Your task to perform on an android device: View the shopping cart on newegg.com. Add logitech g502 to the cart on newegg.com Image 0: 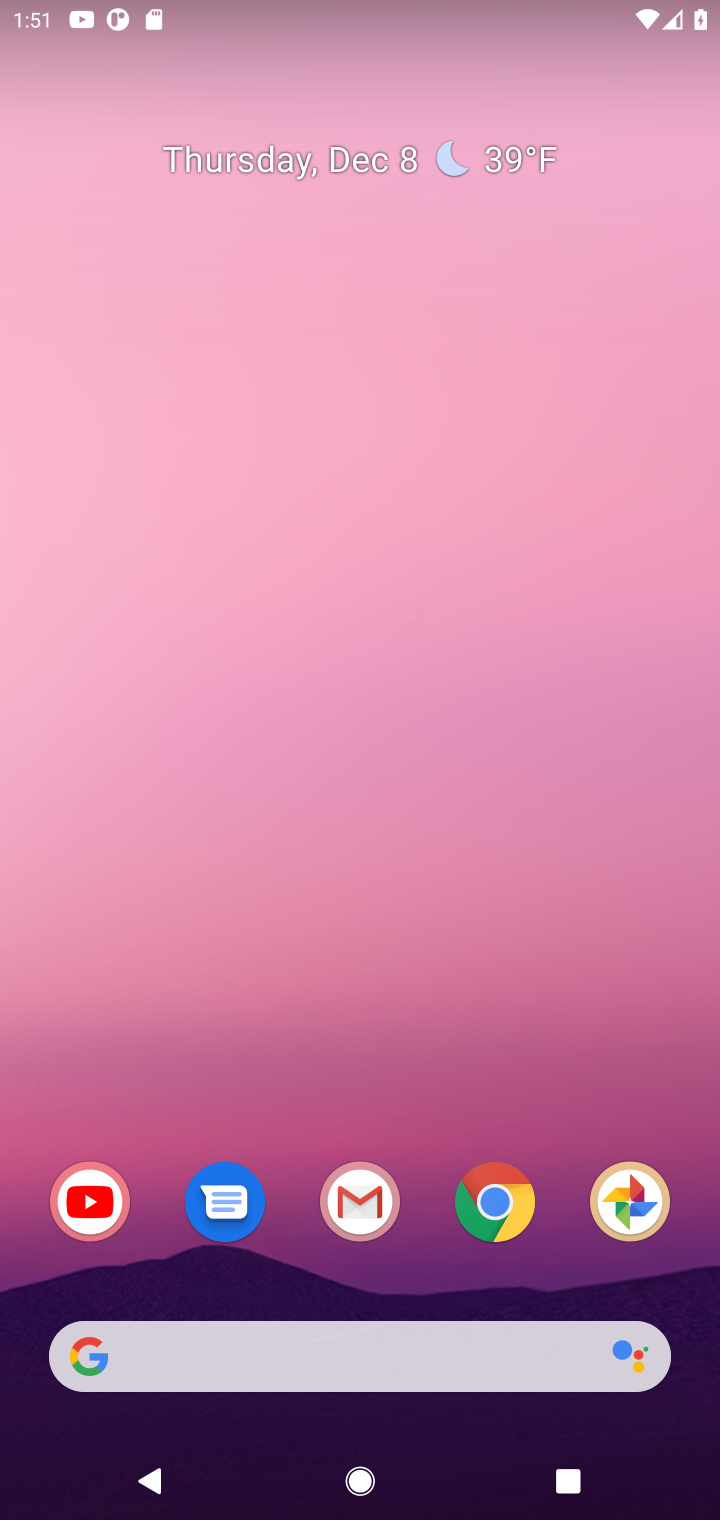
Step 0: click (502, 1199)
Your task to perform on an android device: View the shopping cart on newegg.com. Add logitech g502 to the cart on newegg.com Image 1: 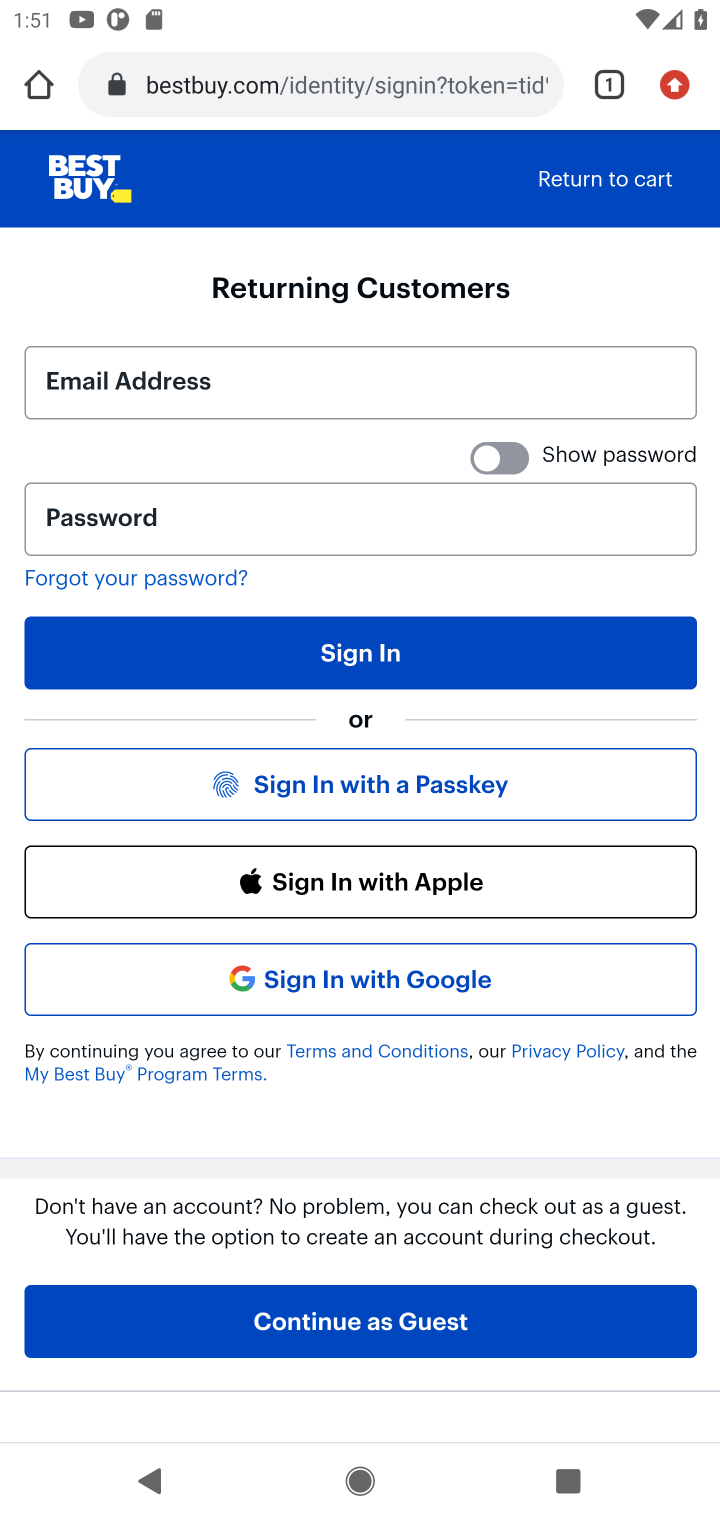
Step 1: click (443, 80)
Your task to perform on an android device: View the shopping cart on newegg.com. Add logitech g502 to the cart on newegg.com Image 2: 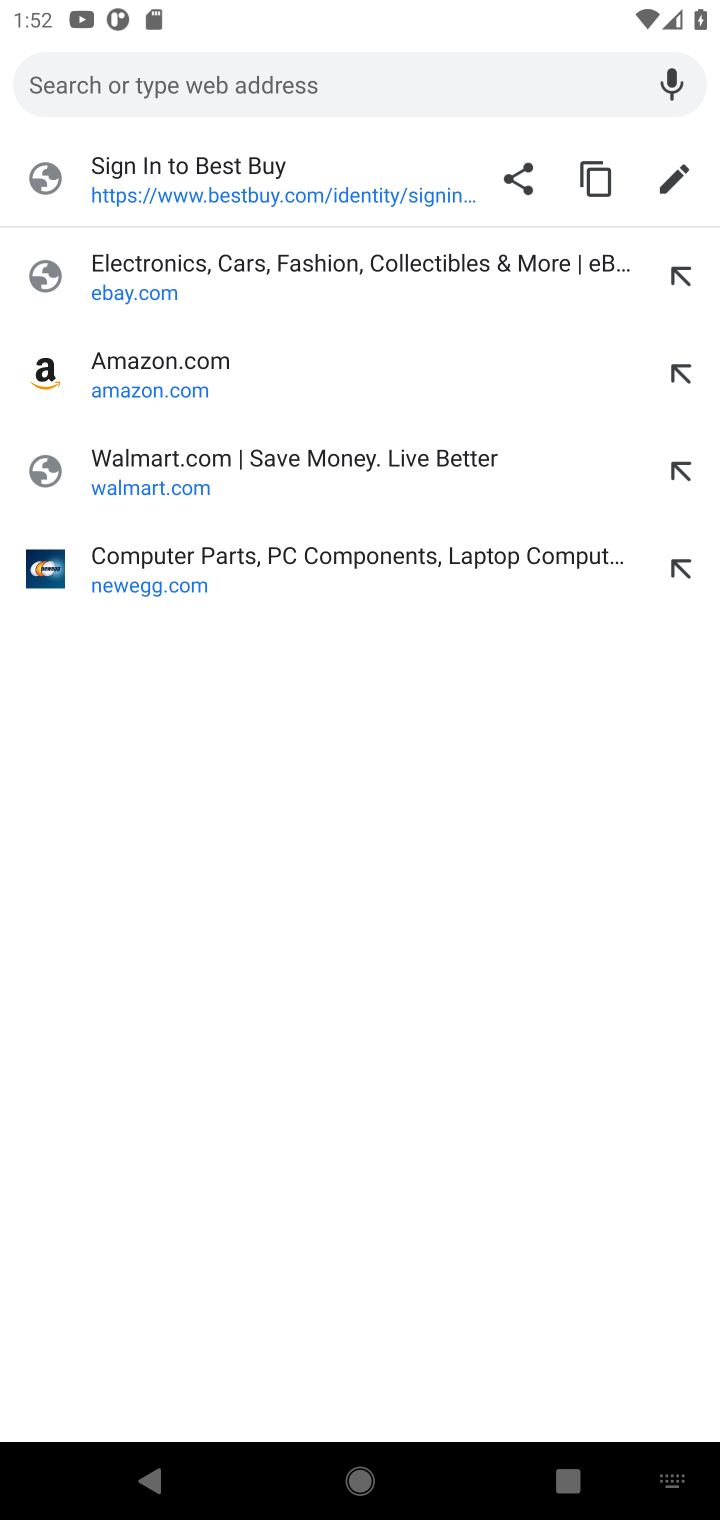
Step 2: click (257, 564)
Your task to perform on an android device: View the shopping cart on newegg.com. Add logitech g502 to the cart on newegg.com Image 3: 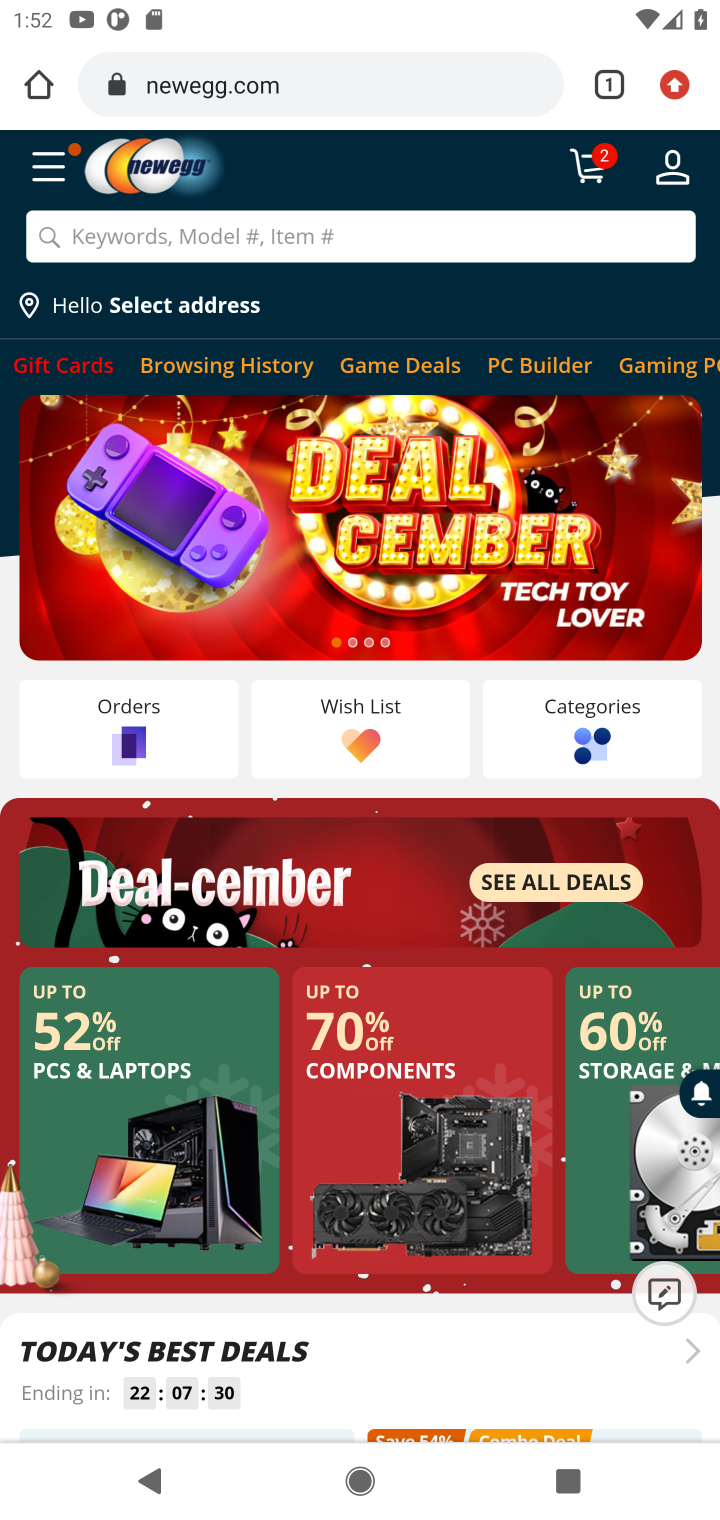
Step 3: click (564, 234)
Your task to perform on an android device: View the shopping cart on newegg.com. Add logitech g502 to the cart on newegg.com Image 4: 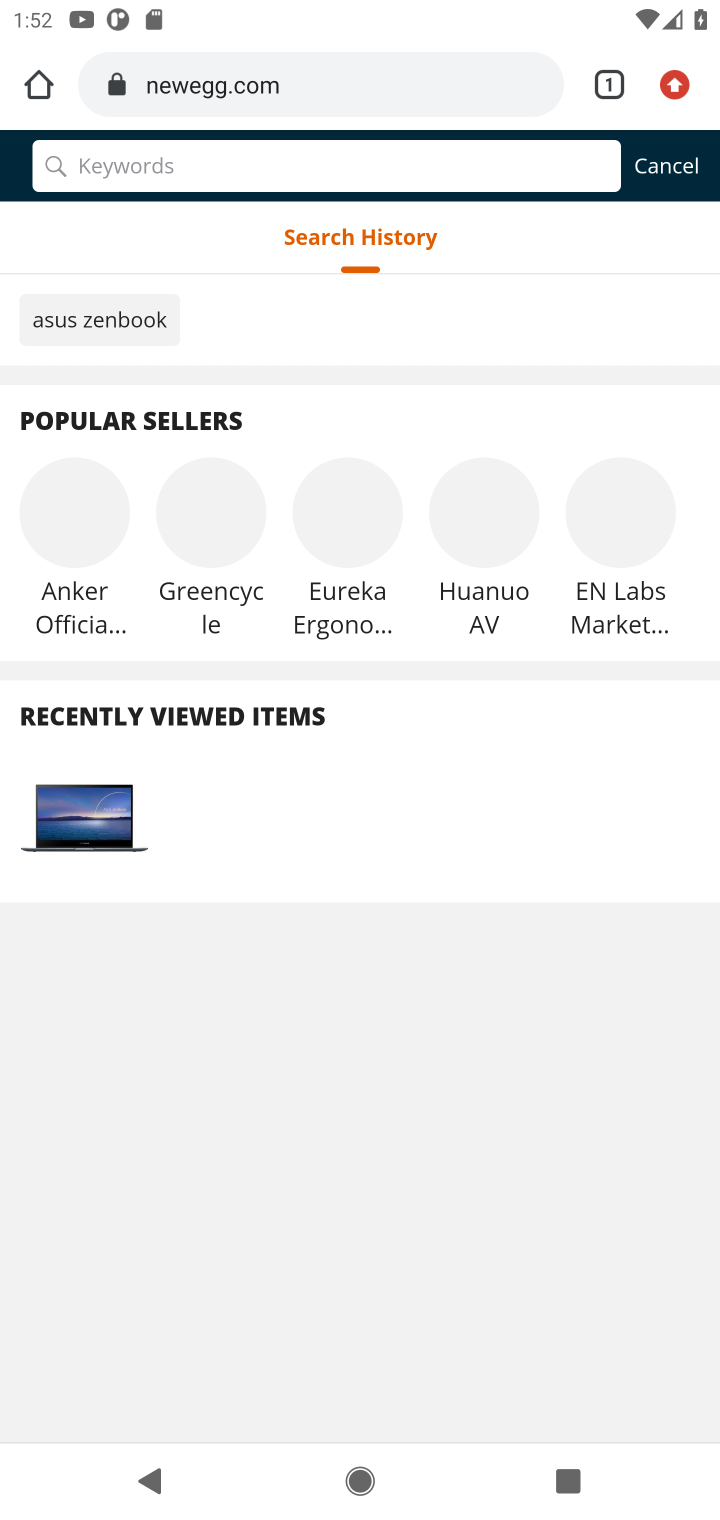
Step 4: click (582, 162)
Your task to perform on an android device: View the shopping cart on newegg.com. Add logitech g502 to the cart on newegg.com Image 5: 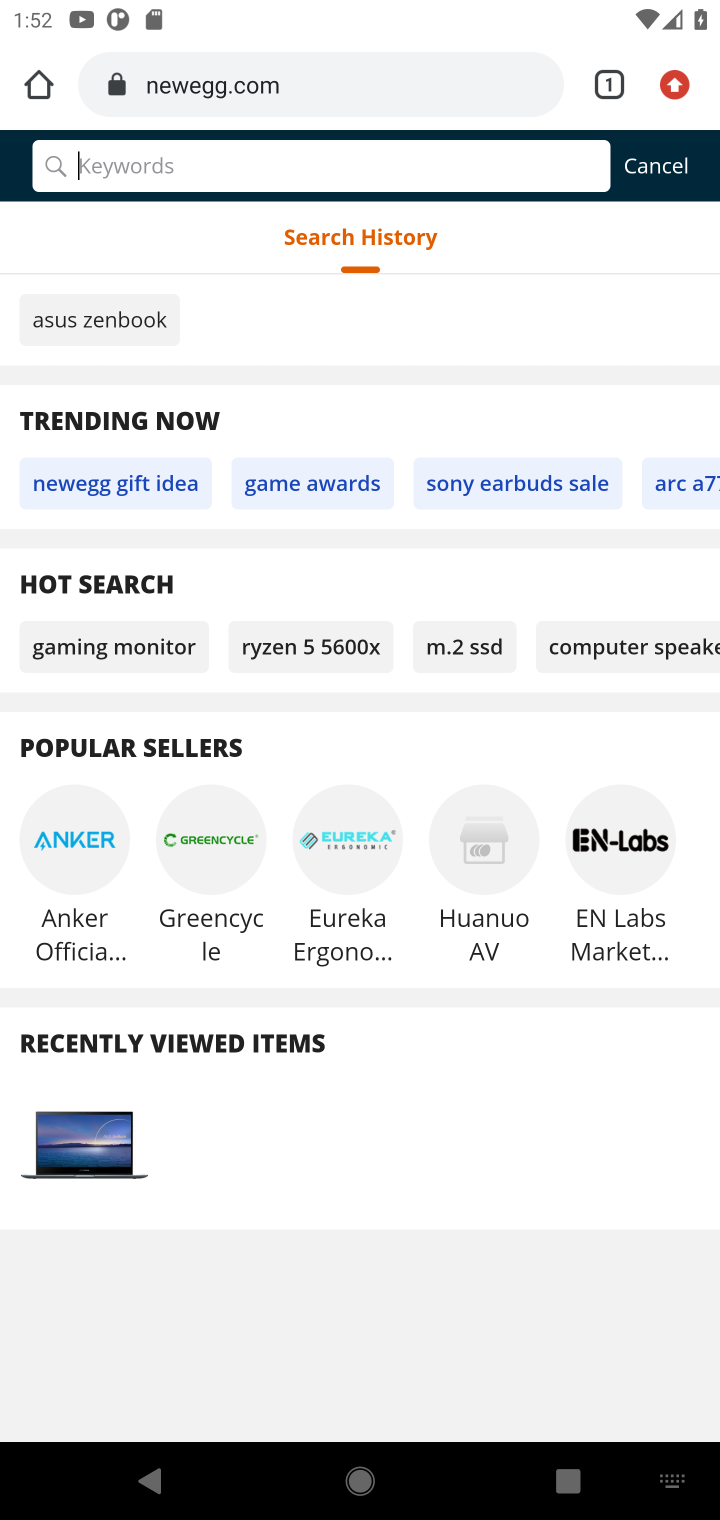
Step 5: click (651, 164)
Your task to perform on an android device: View the shopping cart on newegg.com. Add logitech g502 to the cart on newegg.com Image 6: 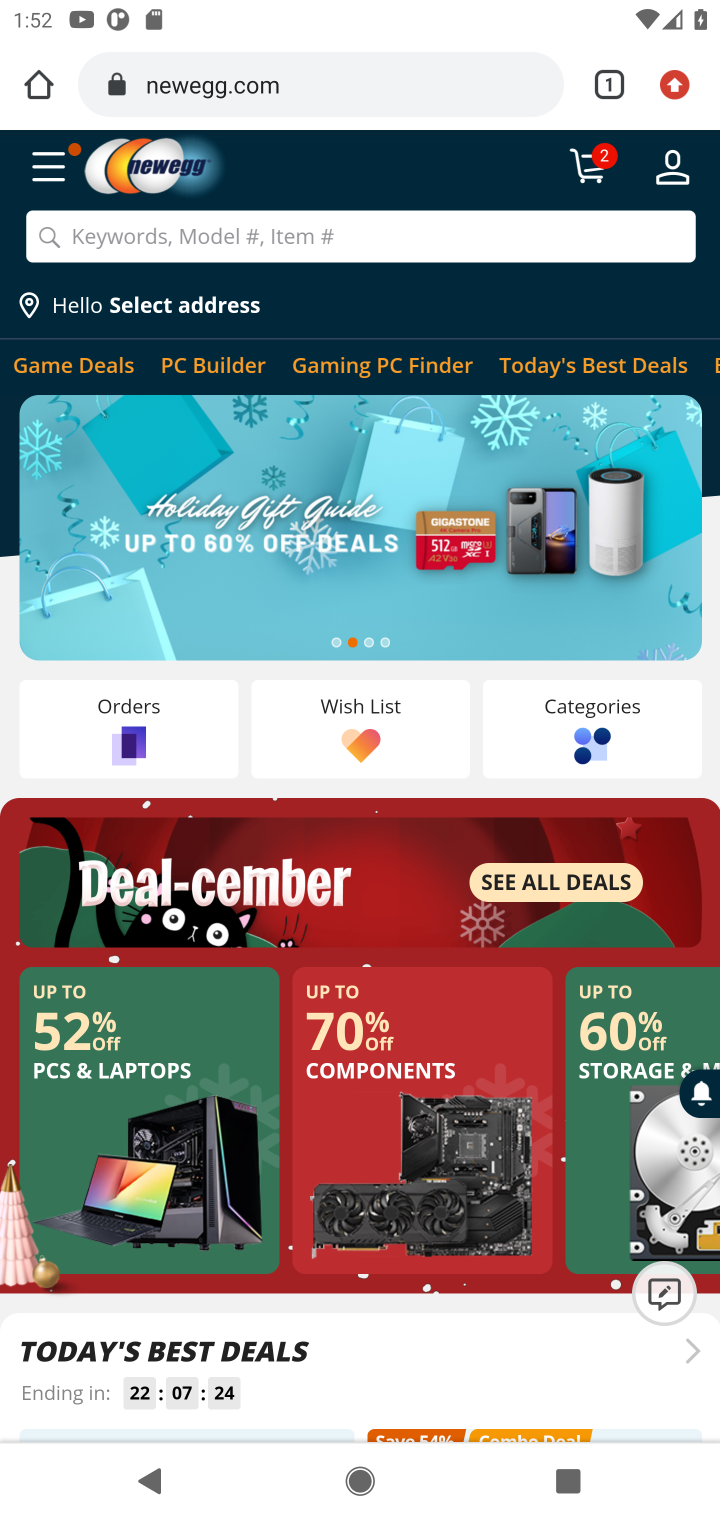
Step 6: click (581, 173)
Your task to perform on an android device: View the shopping cart on newegg.com. Add logitech g502 to the cart on newegg.com Image 7: 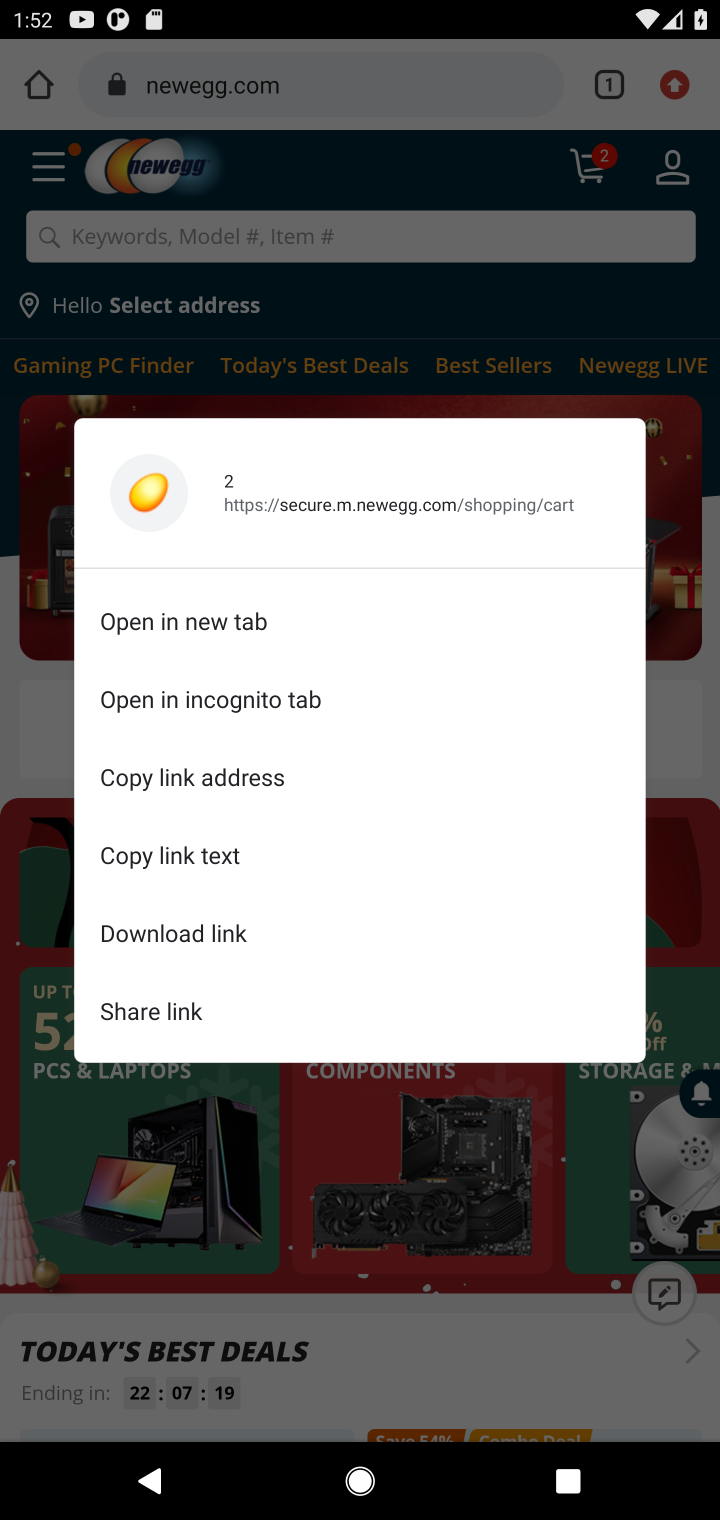
Step 7: click (516, 149)
Your task to perform on an android device: View the shopping cart on newegg.com. Add logitech g502 to the cart on newegg.com Image 8: 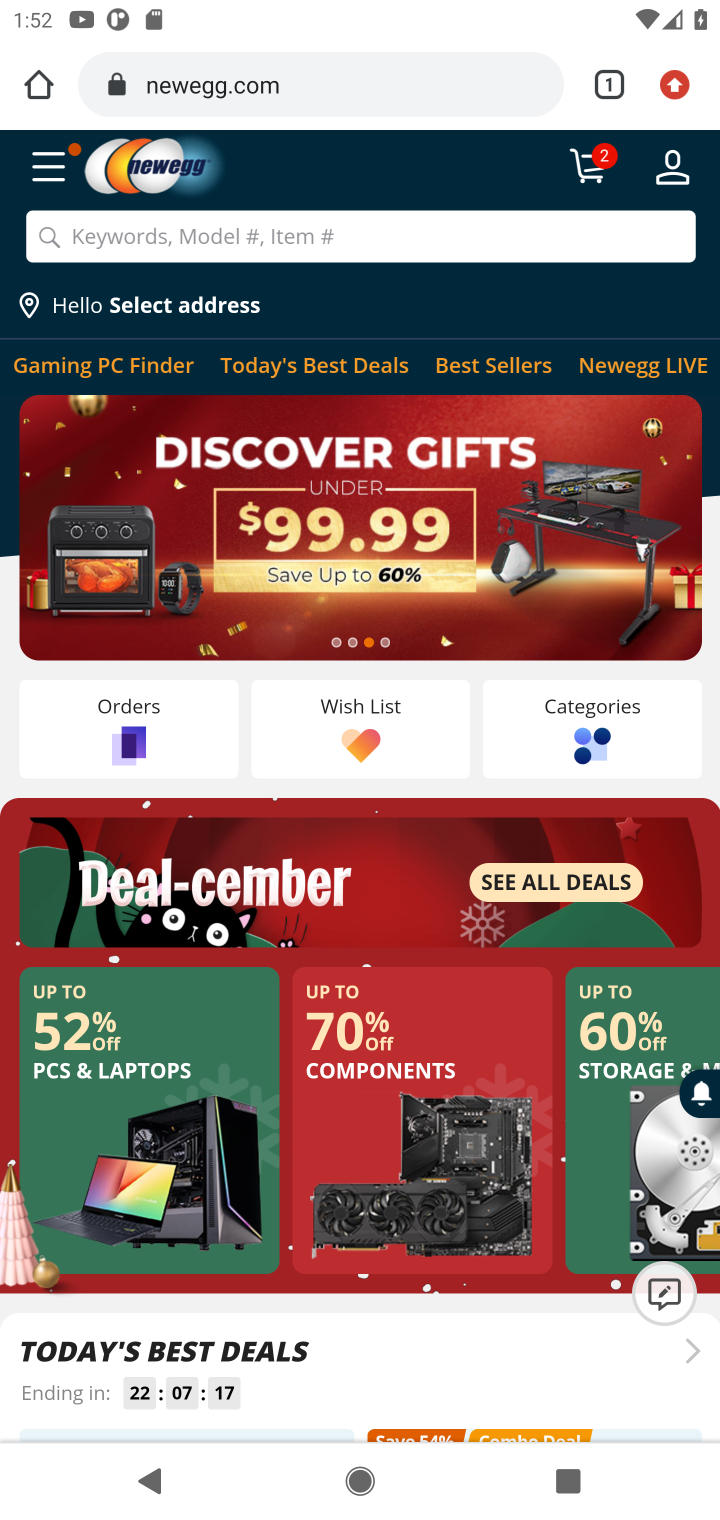
Step 8: click (596, 168)
Your task to perform on an android device: View the shopping cart on newegg.com. Add logitech g502 to the cart on newegg.com Image 9: 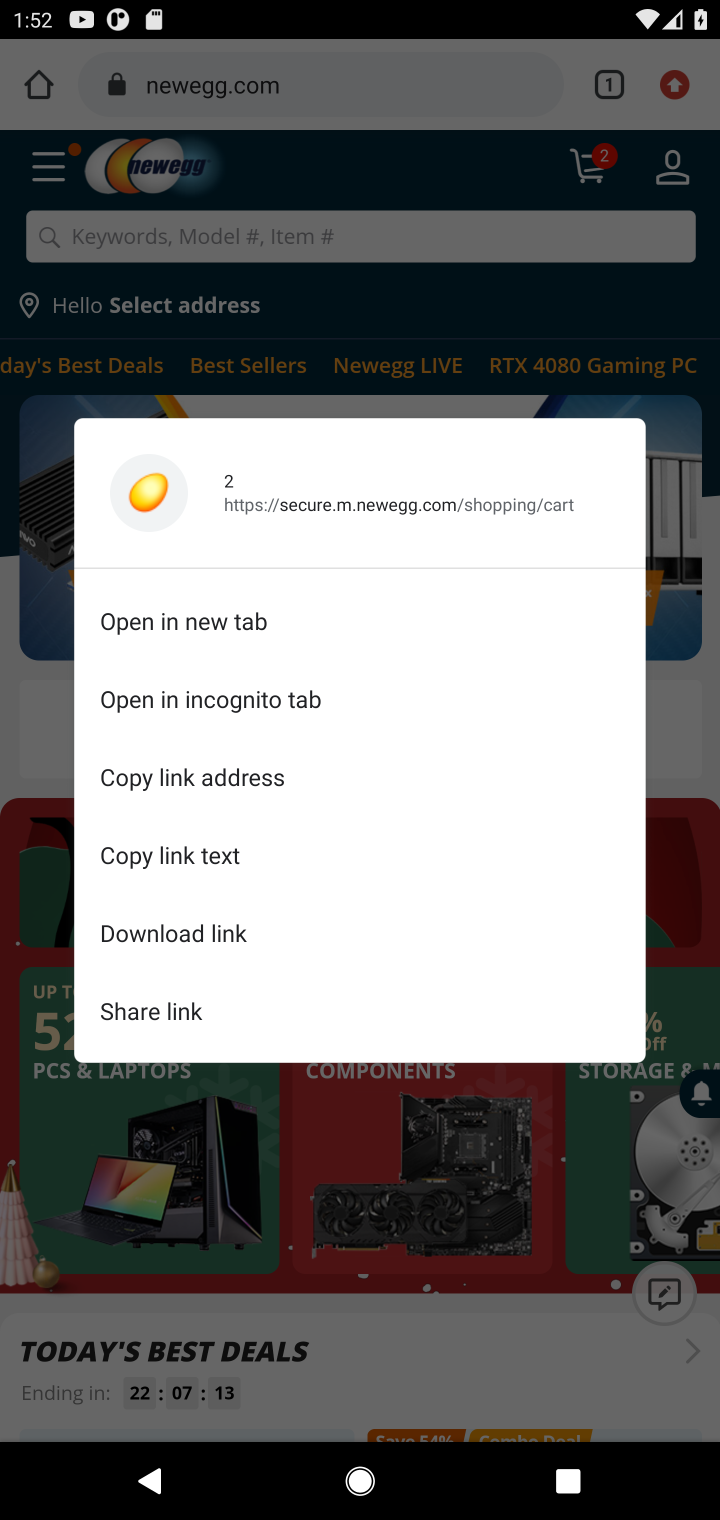
Step 9: click (595, 164)
Your task to perform on an android device: View the shopping cart on newegg.com. Add logitech g502 to the cart on newegg.com Image 10: 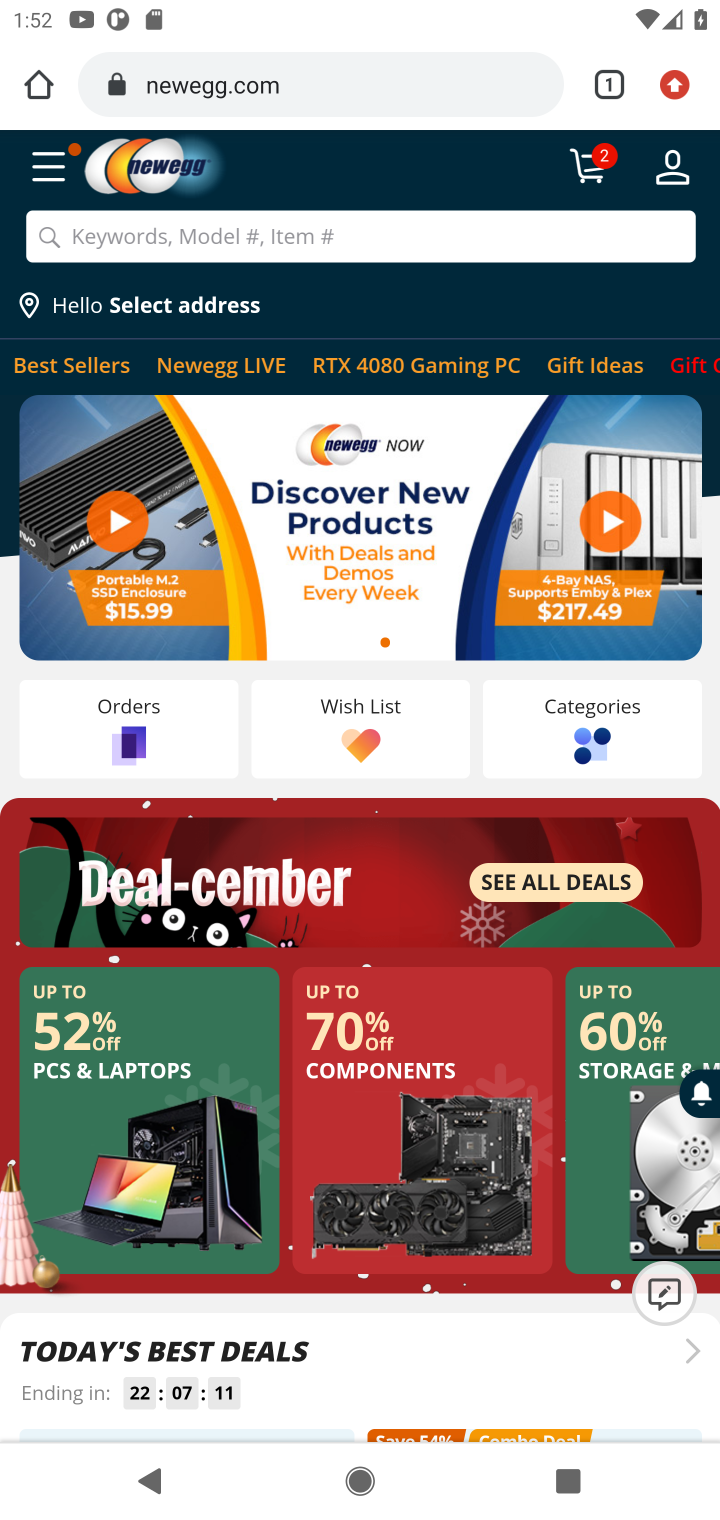
Step 10: click (595, 164)
Your task to perform on an android device: View the shopping cart on newegg.com. Add logitech g502 to the cart on newegg.com Image 11: 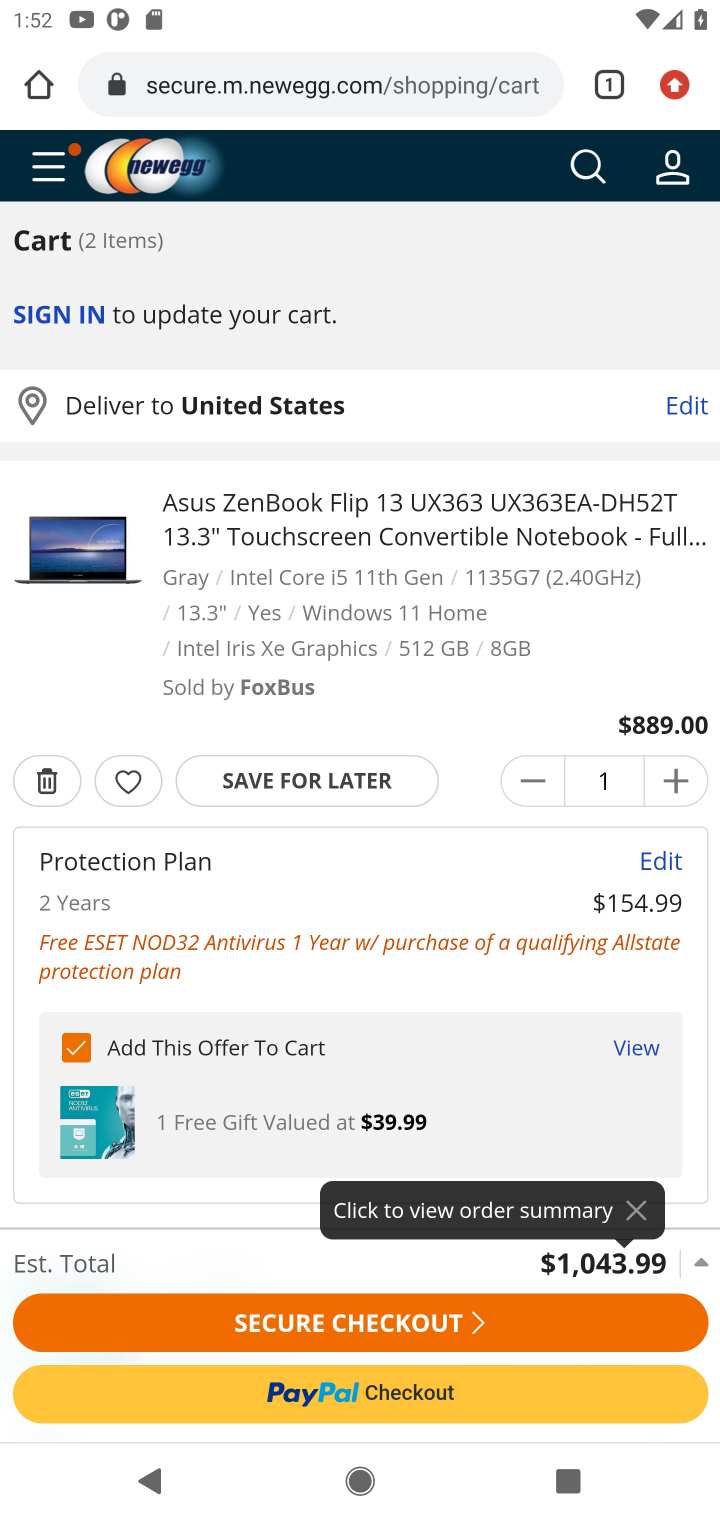
Step 11: click (594, 164)
Your task to perform on an android device: View the shopping cart on newegg.com. Add logitech g502 to the cart on newegg.com Image 12: 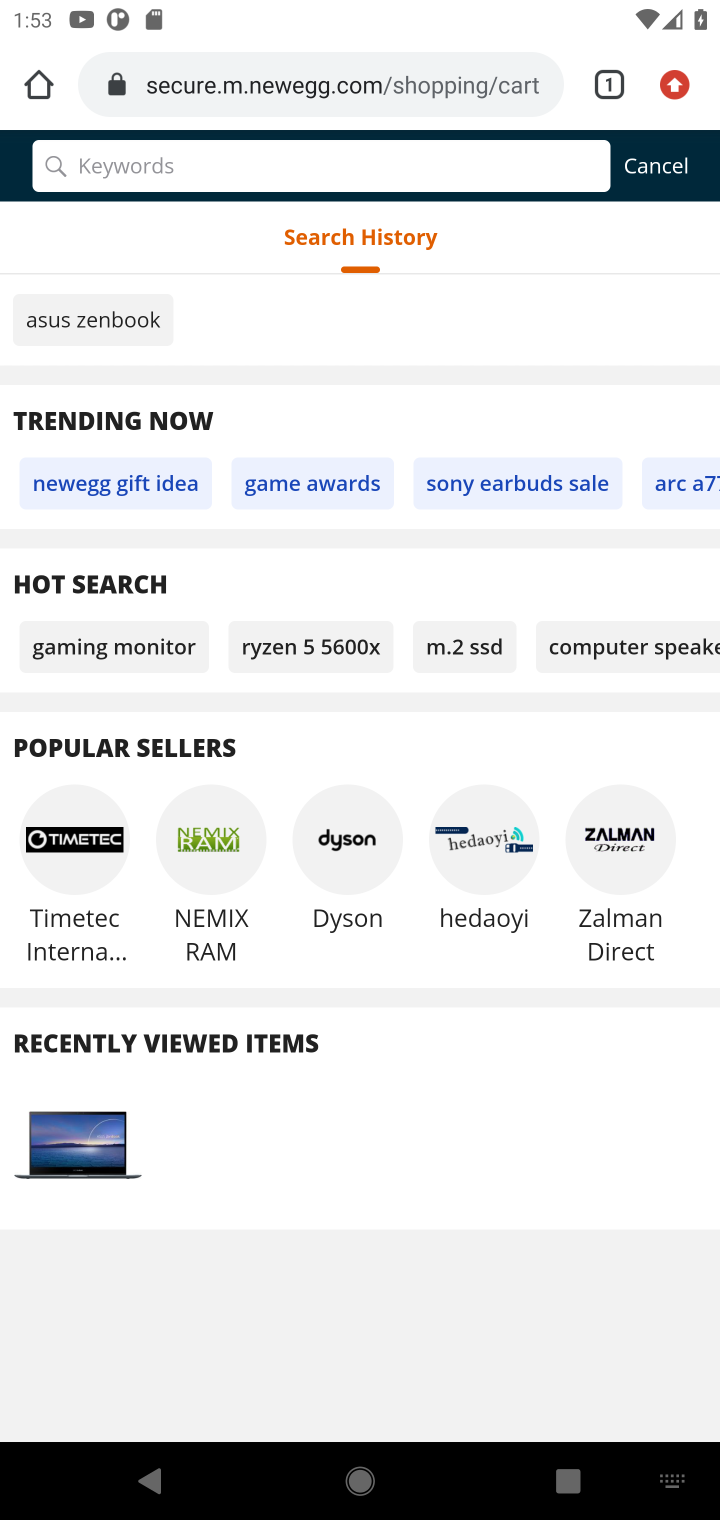
Step 12: press enter
Your task to perform on an android device: View the shopping cart on newegg.com. Add logitech g502 to the cart on newegg.com Image 13: 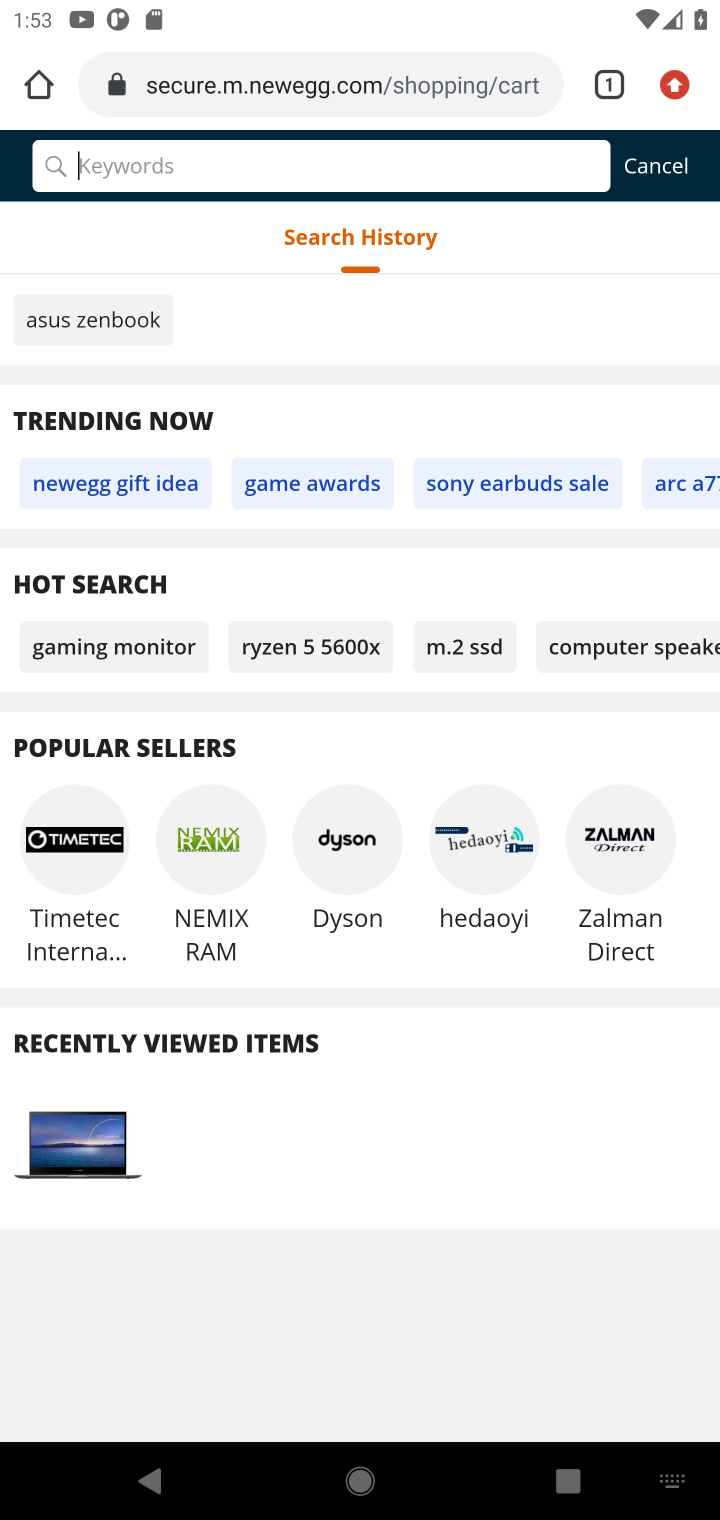
Step 13: type "logitech g502"
Your task to perform on an android device: View the shopping cart on newegg.com. Add logitech g502 to the cart on newegg.com Image 14: 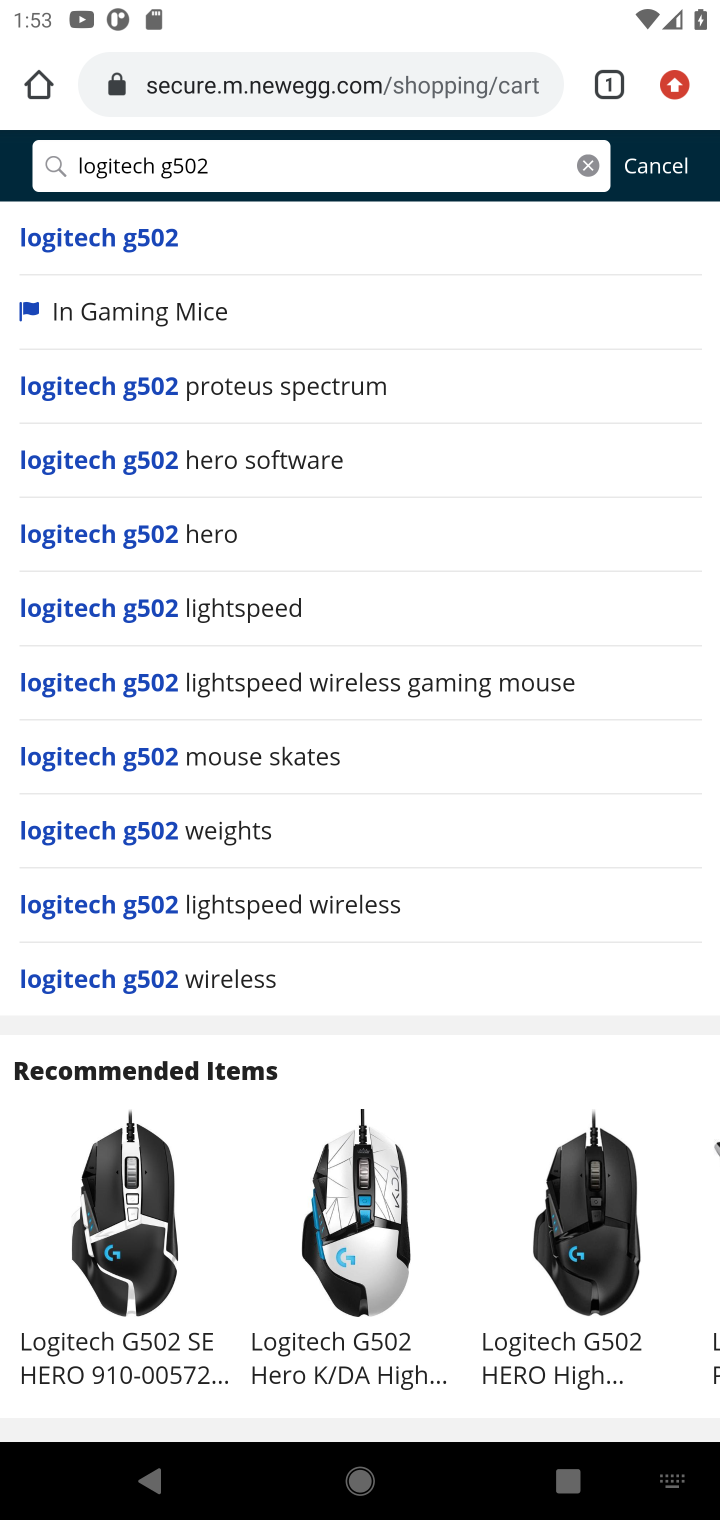
Step 14: click (112, 230)
Your task to perform on an android device: View the shopping cart on newegg.com. Add logitech g502 to the cart on newegg.com Image 15: 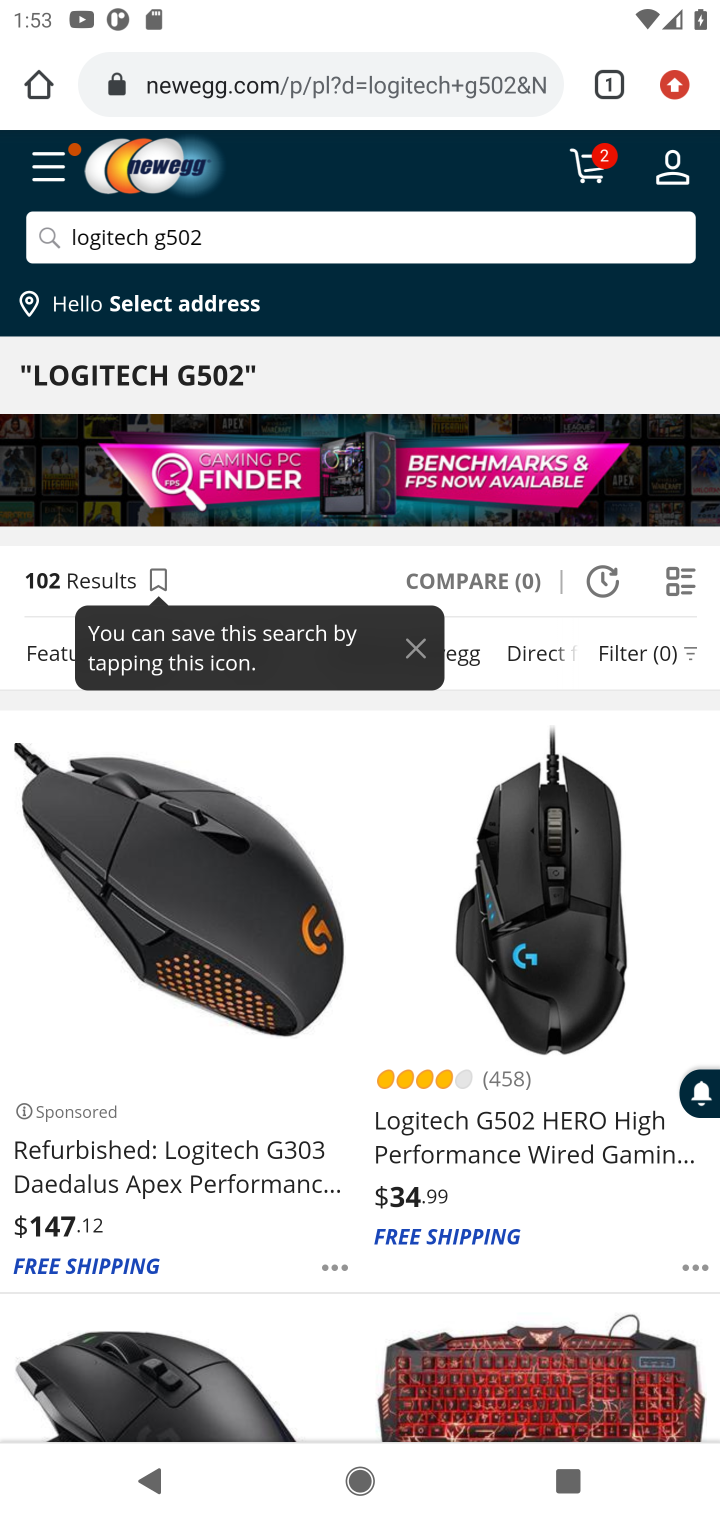
Step 15: click (553, 988)
Your task to perform on an android device: View the shopping cart on newegg.com. Add logitech g502 to the cart on newegg.com Image 16: 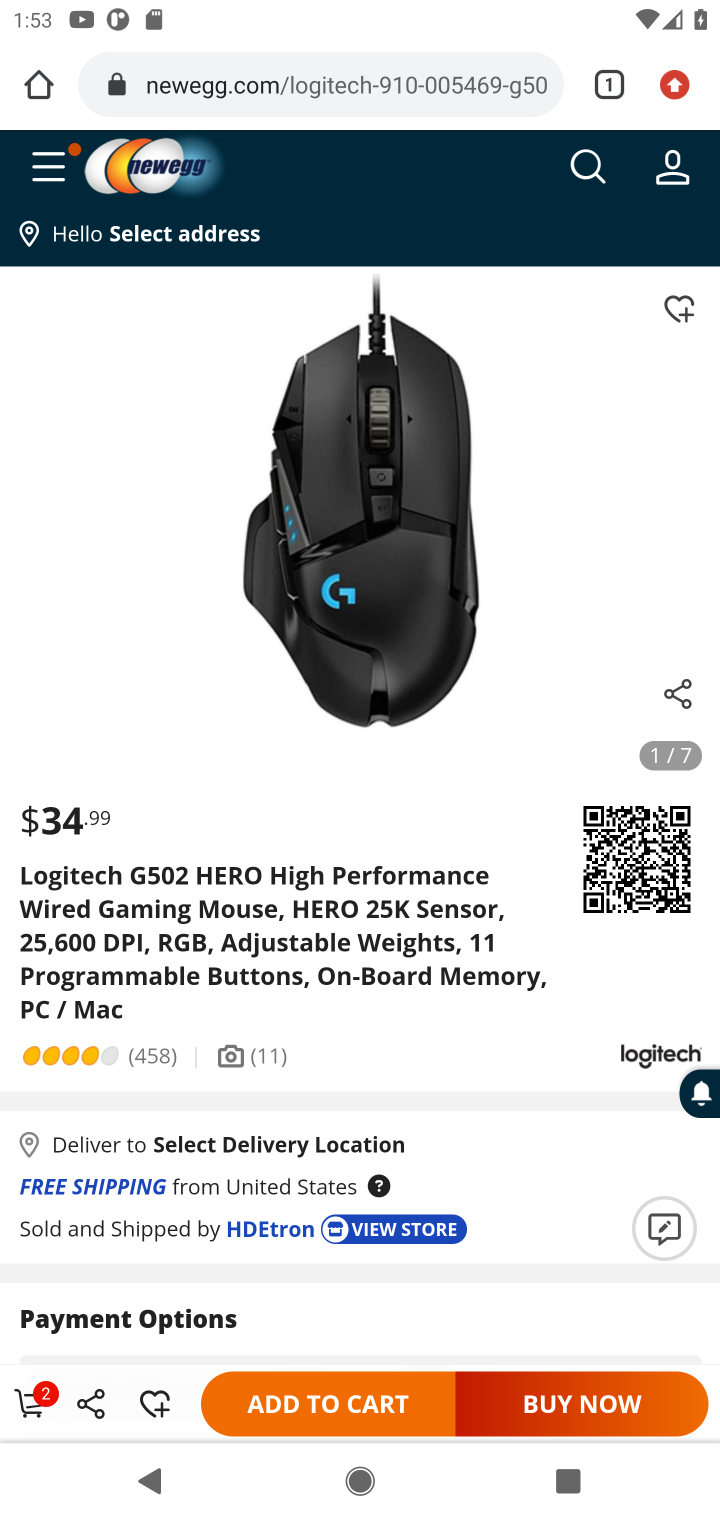
Step 16: click (339, 1396)
Your task to perform on an android device: View the shopping cart on newegg.com. Add logitech g502 to the cart on newegg.com Image 17: 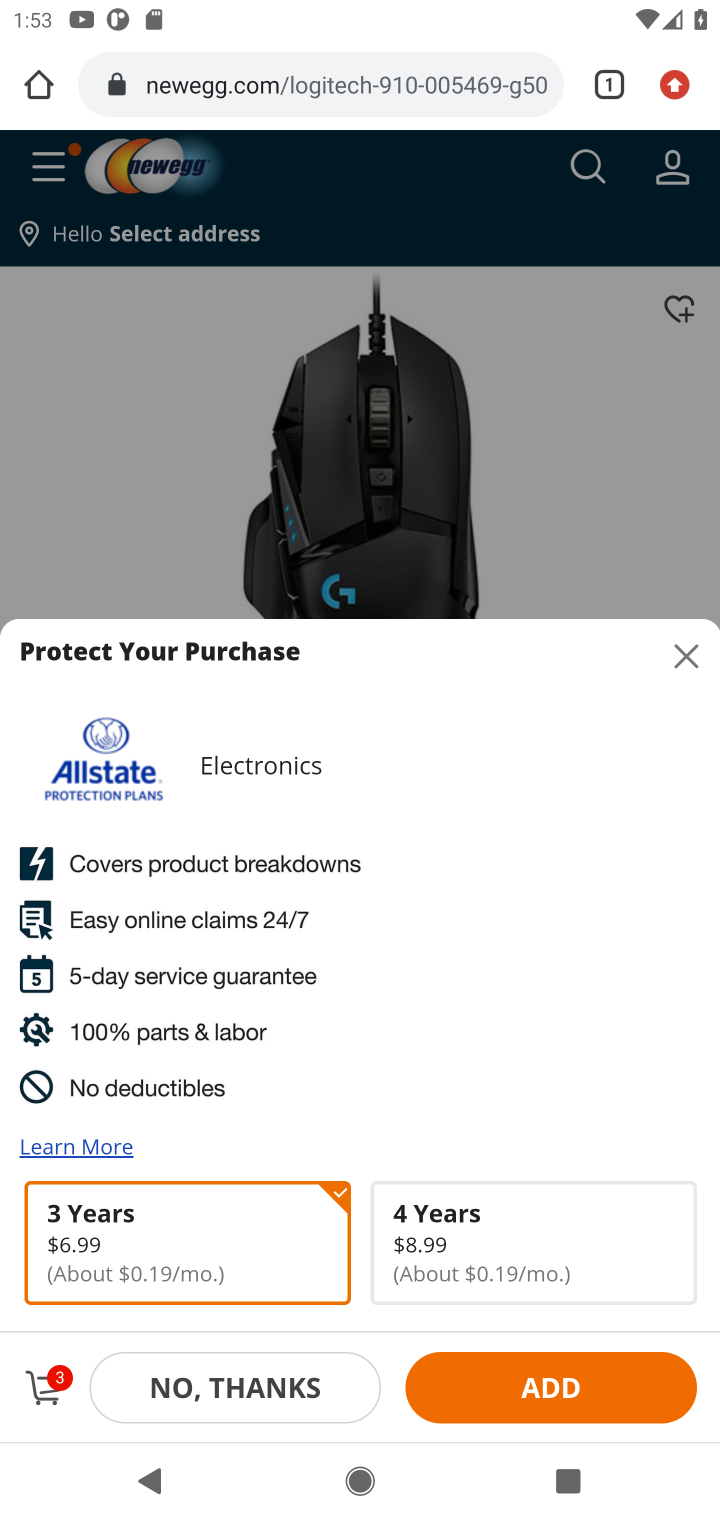
Step 17: click (47, 1396)
Your task to perform on an android device: View the shopping cart on newegg.com. Add logitech g502 to the cart on newegg.com Image 18: 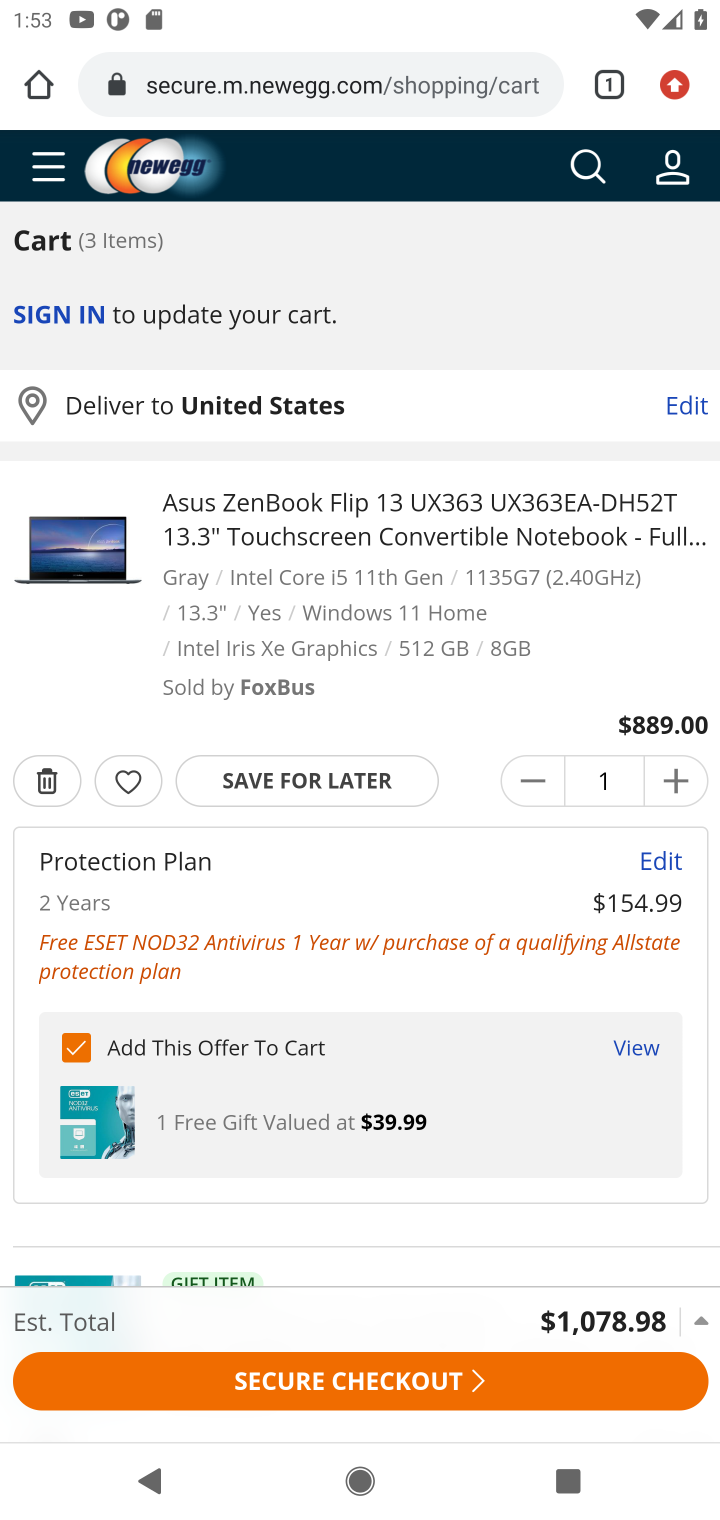
Step 18: task complete